Your task to perform on an android device: Go to Android settings Image 0: 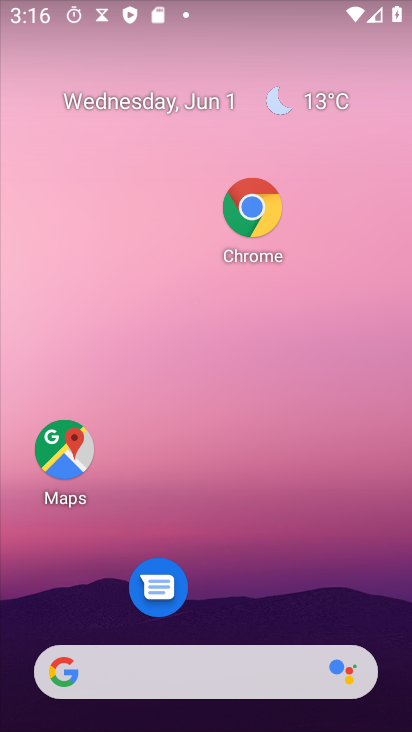
Step 0: drag from (280, 565) to (165, 38)
Your task to perform on an android device: Go to Android settings Image 1: 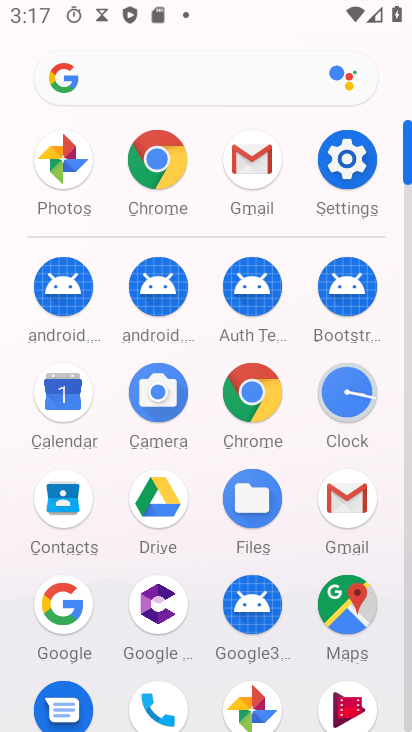
Step 1: click (330, 164)
Your task to perform on an android device: Go to Android settings Image 2: 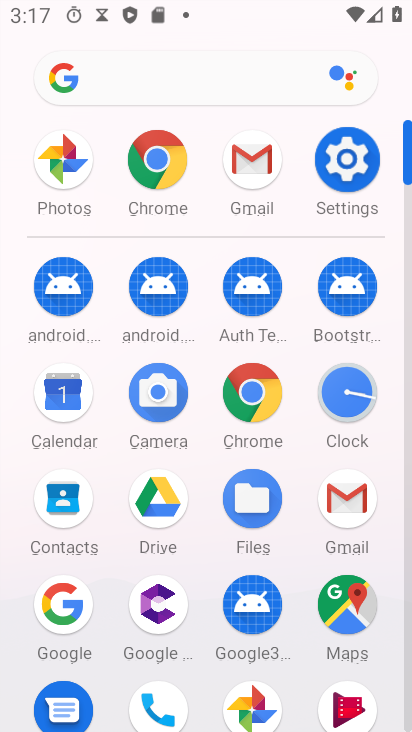
Step 2: click (335, 157)
Your task to perform on an android device: Go to Android settings Image 3: 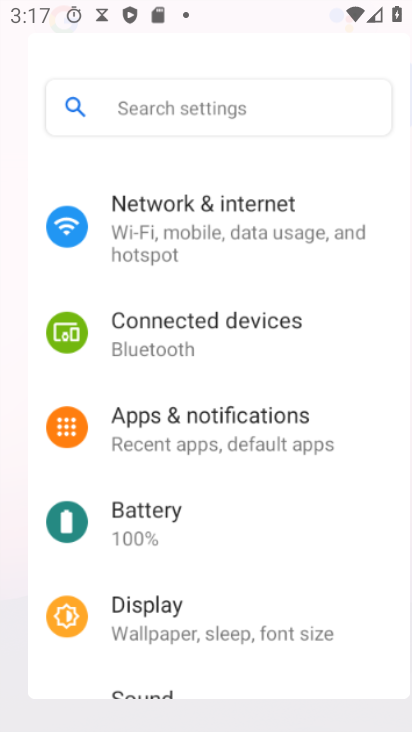
Step 3: click (335, 157)
Your task to perform on an android device: Go to Android settings Image 4: 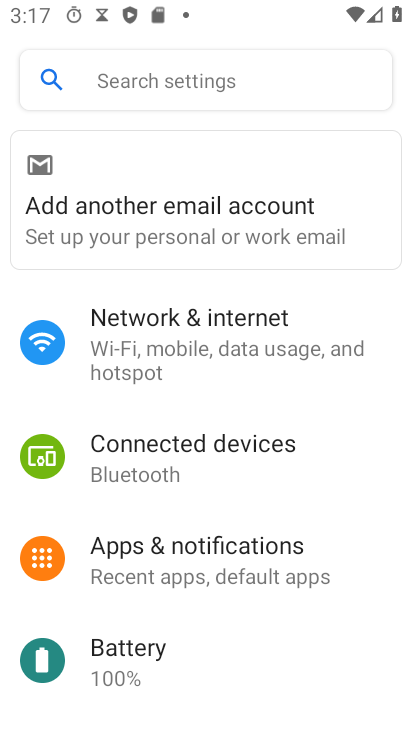
Step 4: drag from (242, 649) to (152, 315)
Your task to perform on an android device: Go to Android settings Image 5: 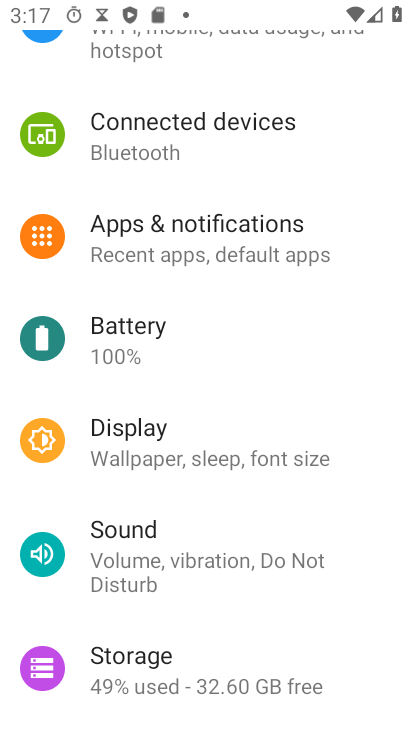
Step 5: drag from (217, 564) to (241, 171)
Your task to perform on an android device: Go to Android settings Image 6: 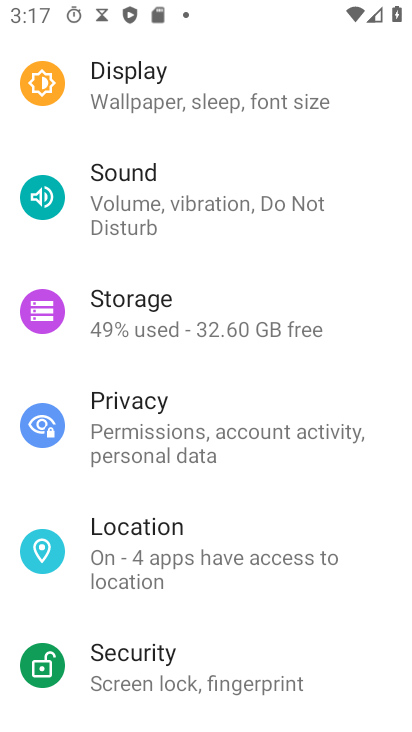
Step 6: drag from (232, 533) to (239, 169)
Your task to perform on an android device: Go to Android settings Image 7: 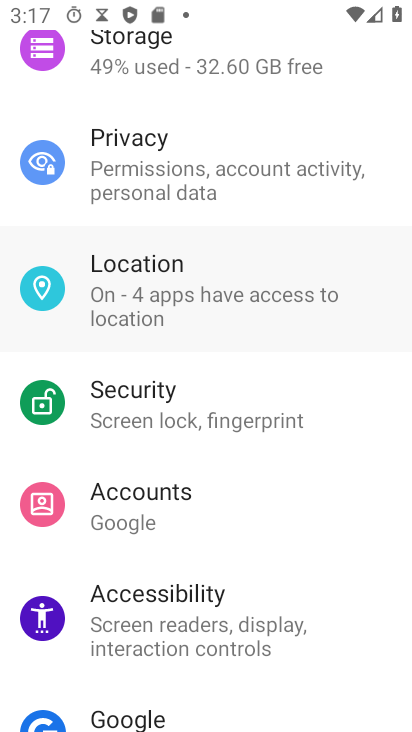
Step 7: drag from (192, 216) to (192, 177)
Your task to perform on an android device: Go to Android settings Image 8: 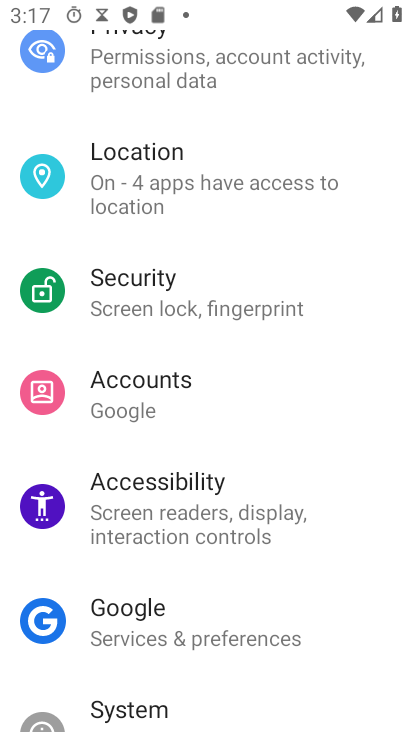
Step 8: drag from (200, 560) to (174, 314)
Your task to perform on an android device: Go to Android settings Image 9: 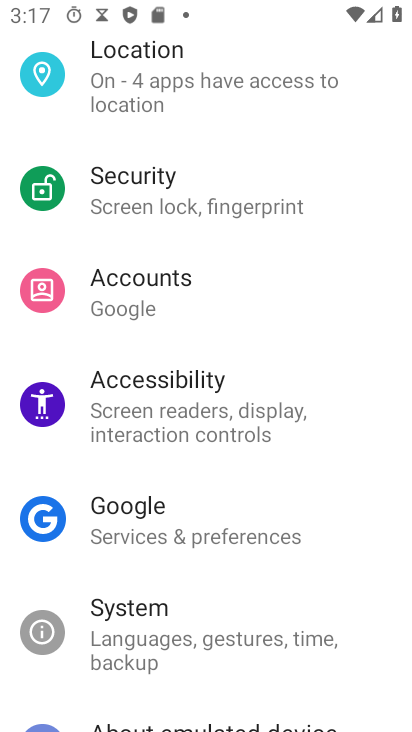
Step 9: drag from (176, 540) to (172, 225)
Your task to perform on an android device: Go to Android settings Image 10: 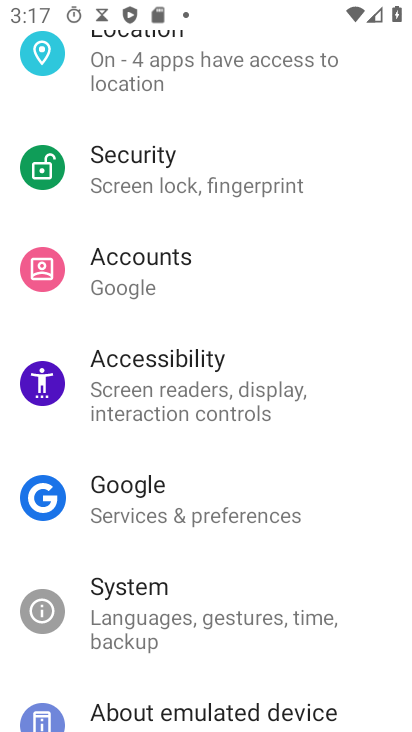
Step 10: drag from (130, 556) to (161, 273)
Your task to perform on an android device: Go to Android settings Image 11: 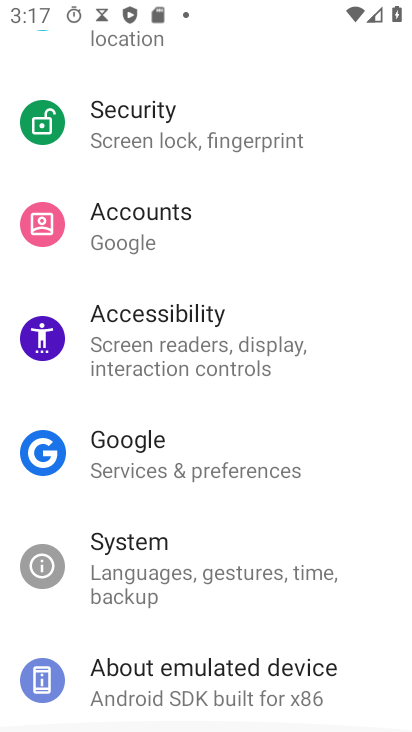
Step 11: drag from (149, 493) to (151, 257)
Your task to perform on an android device: Go to Android settings Image 12: 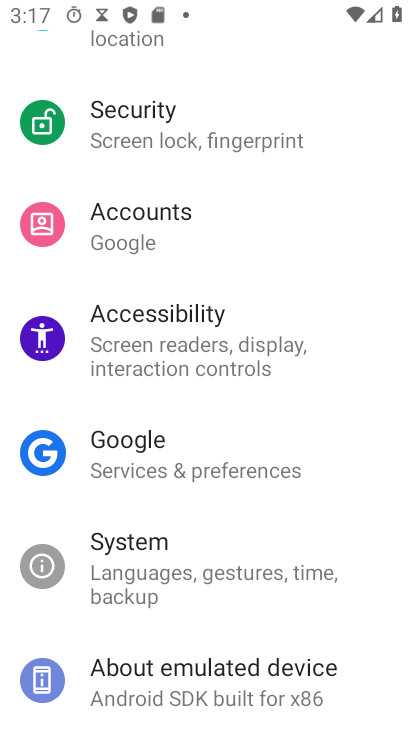
Step 12: click (200, 683)
Your task to perform on an android device: Go to Android settings Image 13: 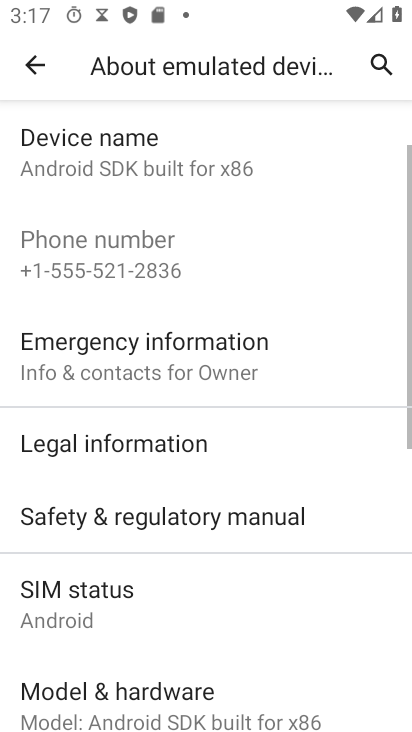
Step 13: task complete